Your task to perform on an android device: create a new album in the google photos Image 0: 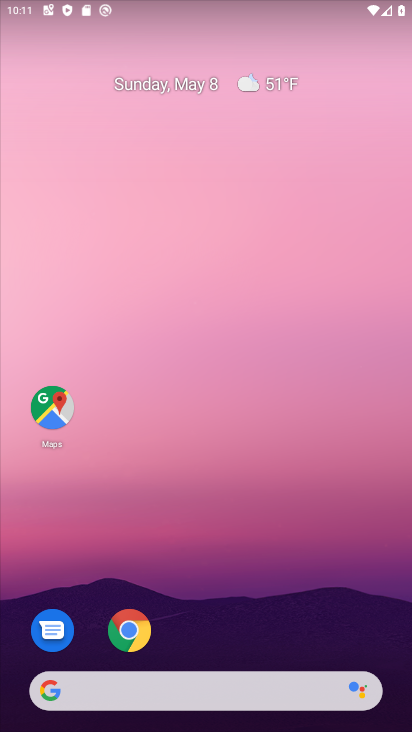
Step 0: drag from (366, 620) to (258, 38)
Your task to perform on an android device: create a new album in the google photos Image 1: 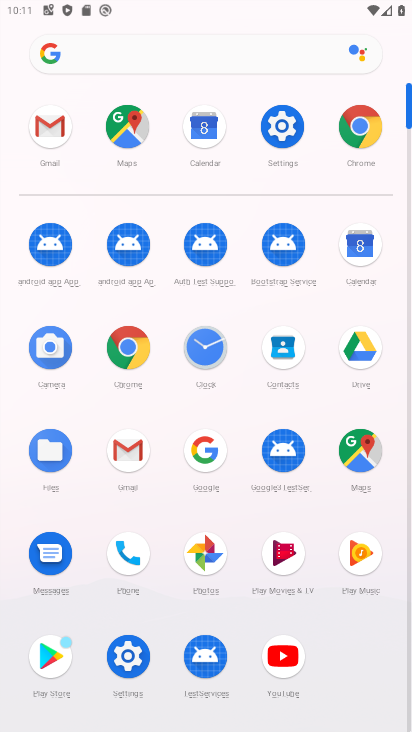
Step 1: click (210, 566)
Your task to perform on an android device: create a new album in the google photos Image 2: 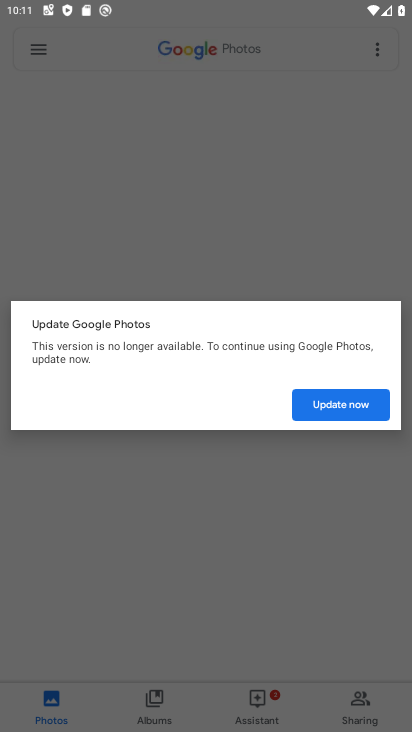
Step 2: click (328, 398)
Your task to perform on an android device: create a new album in the google photos Image 3: 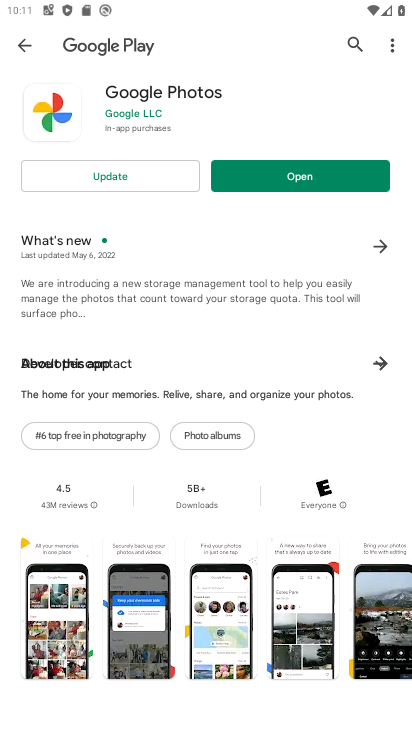
Step 3: click (127, 177)
Your task to perform on an android device: create a new album in the google photos Image 4: 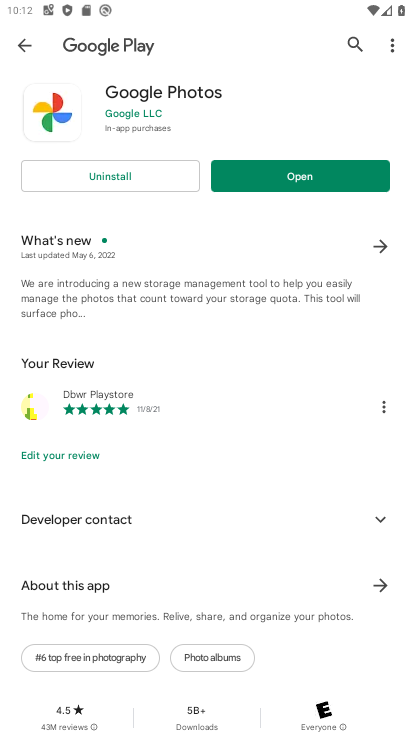
Step 4: click (279, 187)
Your task to perform on an android device: create a new album in the google photos Image 5: 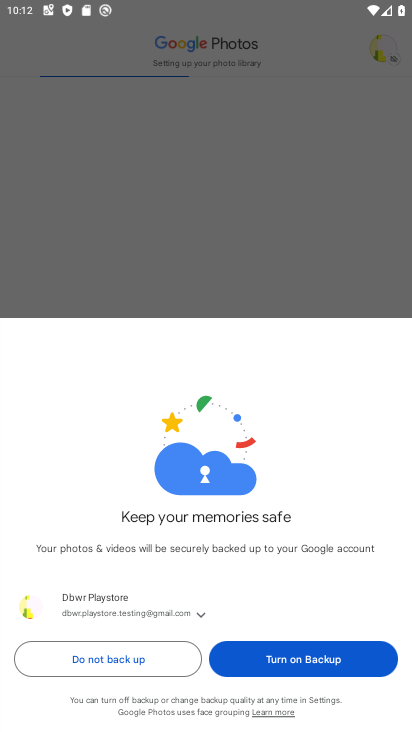
Step 5: click (267, 661)
Your task to perform on an android device: create a new album in the google photos Image 6: 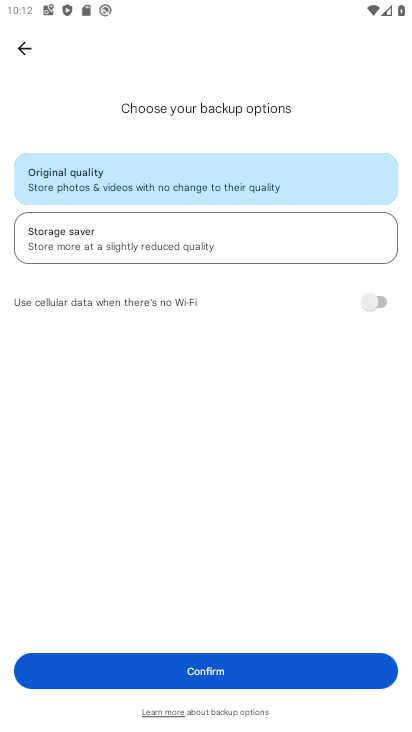
Step 6: click (267, 661)
Your task to perform on an android device: create a new album in the google photos Image 7: 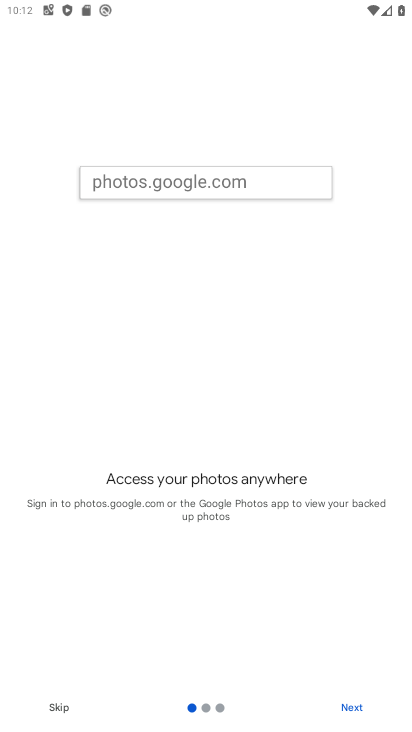
Step 7: click (343, 702)
Your task to perform on an android device: create a new album in the google photos Image 8: 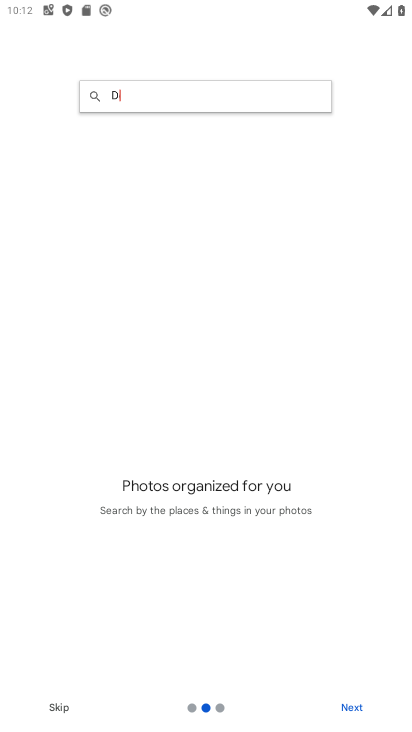
Step 8: click (343, 702)
Your task to perform on an android device: create a new album in the google photos Image 9: 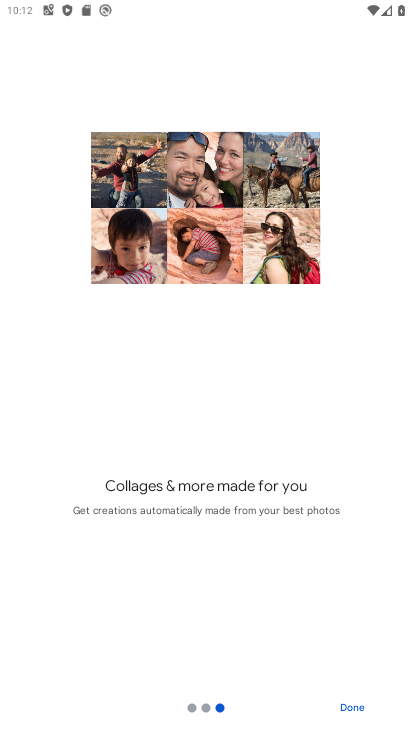
Step 9: click (343, 702)
Your task to perform on an android device: create a new album in the google photos Image 10: 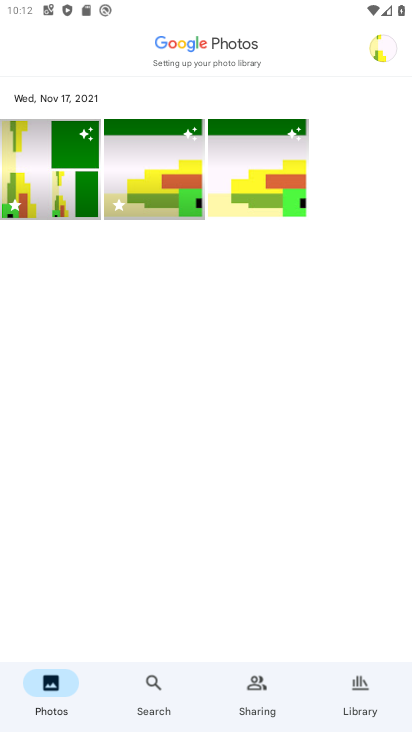
Step 10: click (31, 170)
Your task to perform on an android device: create a new album in the google photos Image 11: 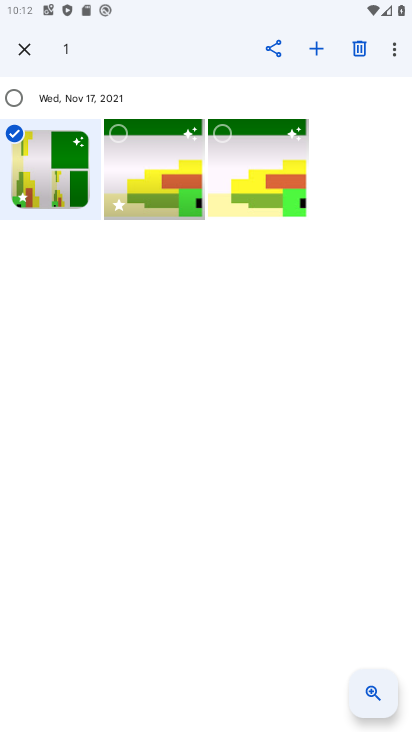
Step 11: click (312, 42)
Your task to perform on an android device: create a new album in the google photos Image 12: 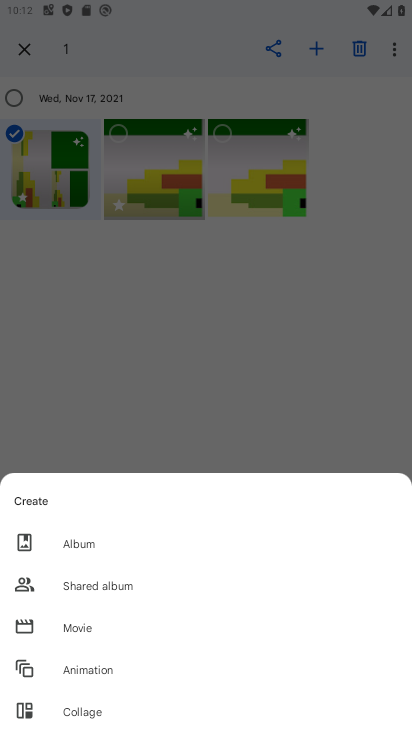
Step 12: click (81, 545)
Your task to perform on an android device: create a new album in the google photos Image 13: 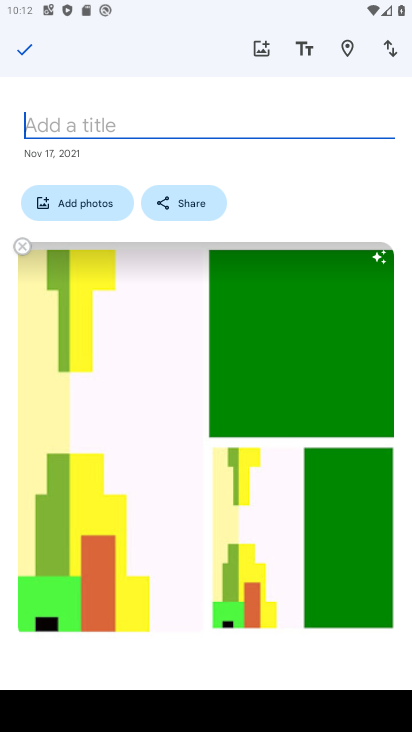
Step 13: type "LV"
Your task to perform on an android device: create a new album in the google photos Image 14: 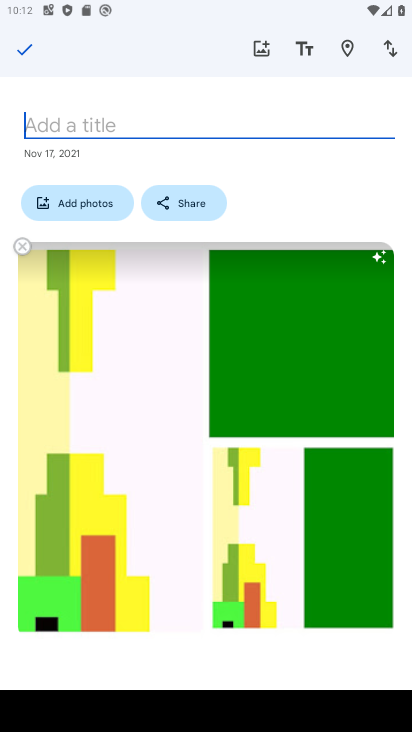
Step 14: click (22, 52)
Your task to perform on an android device: create a new album in the google photos Image 15: 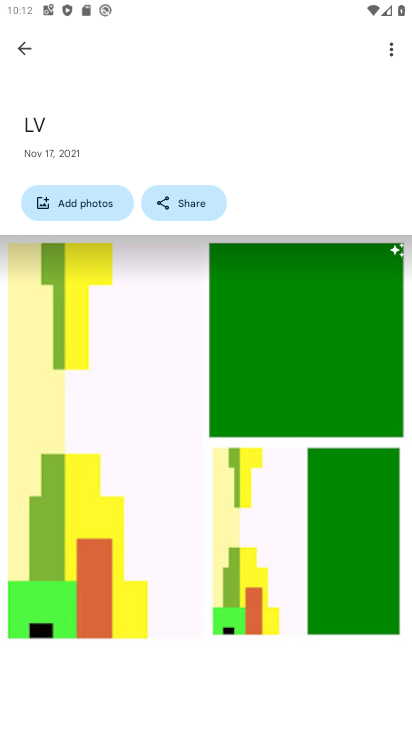
Step 15: task complete